Your task to perform on an android device: turn off location history Image 0: 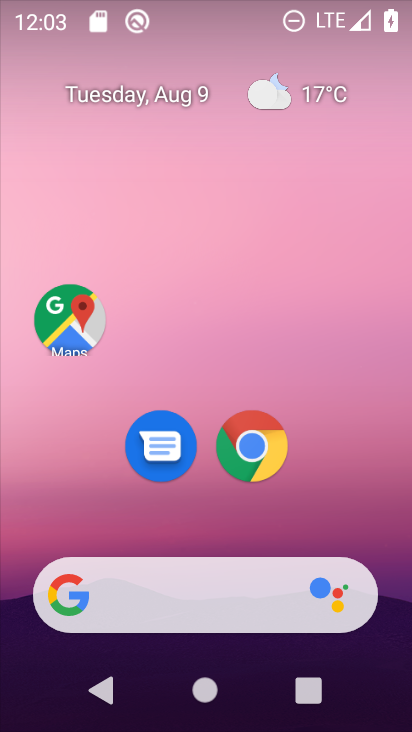
Step 0: click (70, 321)
Your task to perform on an android device: turn off location history Image 1: 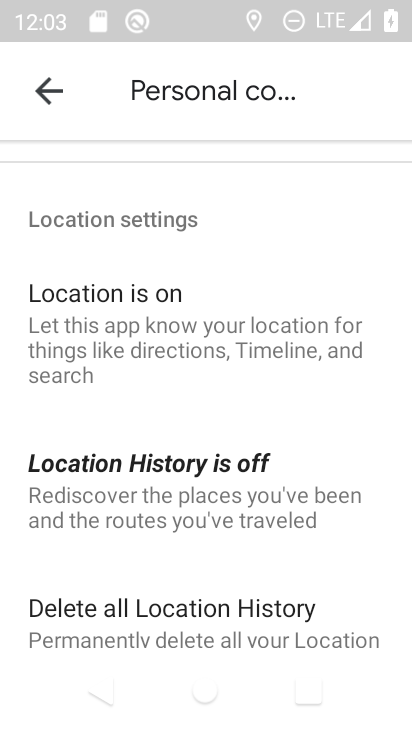
Step 1: task complete